Your task to perform on an android device: toggle javascript in the chrome app Image 0: 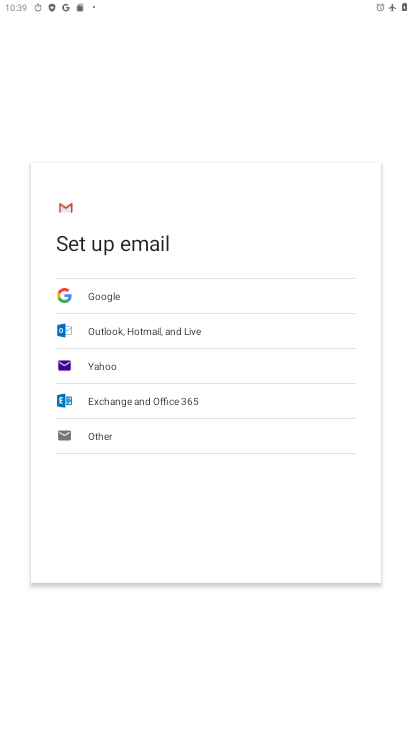
Step 0: press home button
Your task to perform on an android device: toggle javascript in the chrome app Image 1: 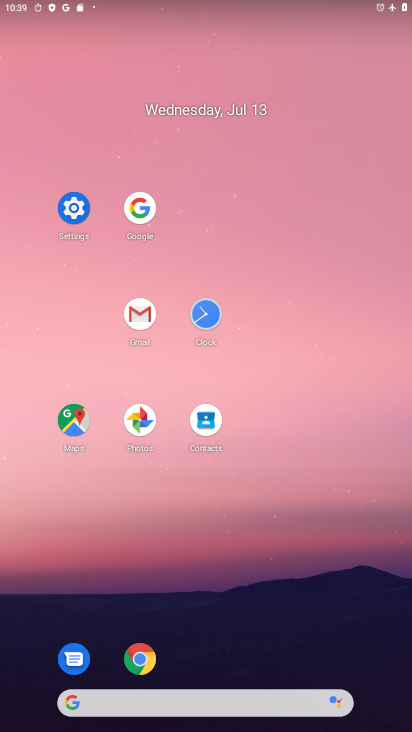
Step 1: click (142, 668)
Your task to perform on an android device: toggle javascript in the chrome app Image 2: 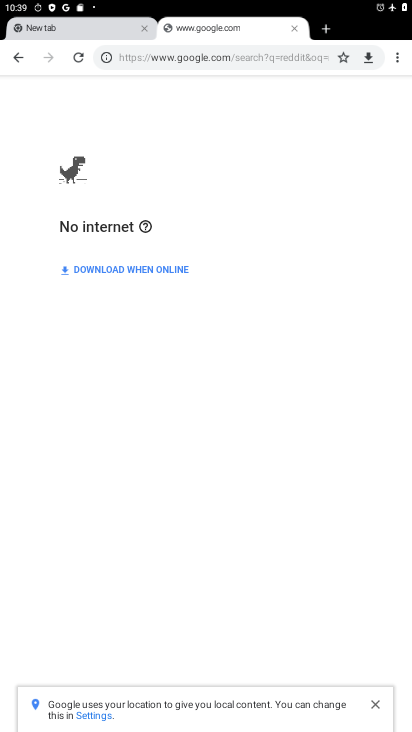
Step 2: click (333, 39)
Your task to perform on an android device: toggle javascript in the chrome app Image 3: 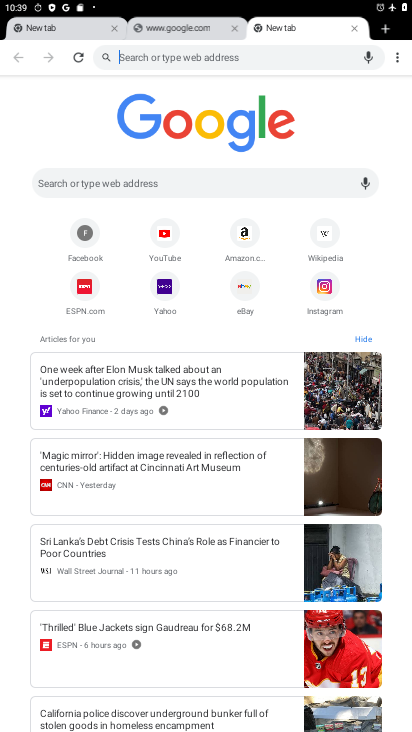
Step 3: click (397, 51)
Your task to perform on an android device: toggle javascript in the chrome app Image 4: 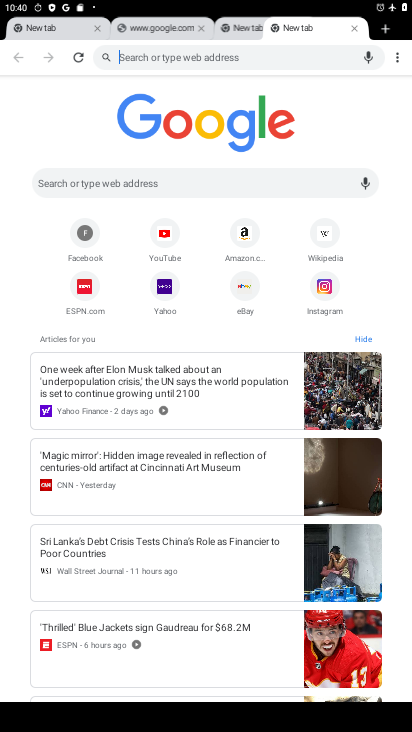
Step 4: click (401, 69)
Your task to perform on an android device: toggle javascript in the chrome app Image 5: 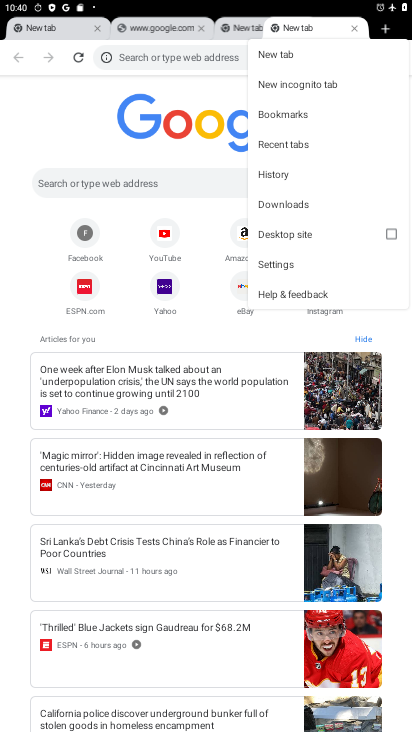
Step 5: click (287, 260)
Your task to perform on an android device: toggle javascript in the chrome app Image 6: 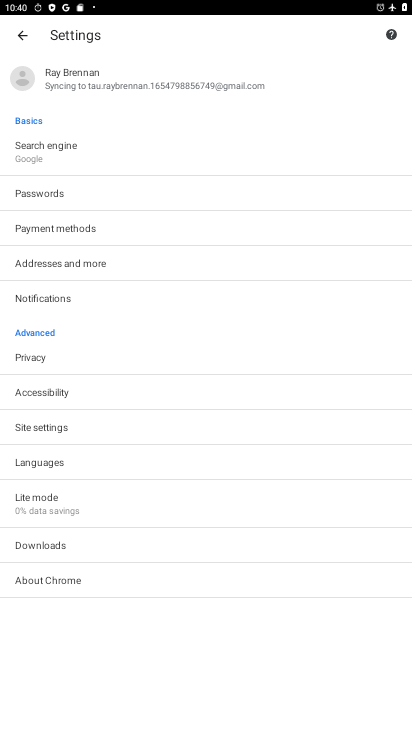
Step 6: click (126, 433)
Your task to perform on an android device: toggle javascript in the chrome app Image 7: 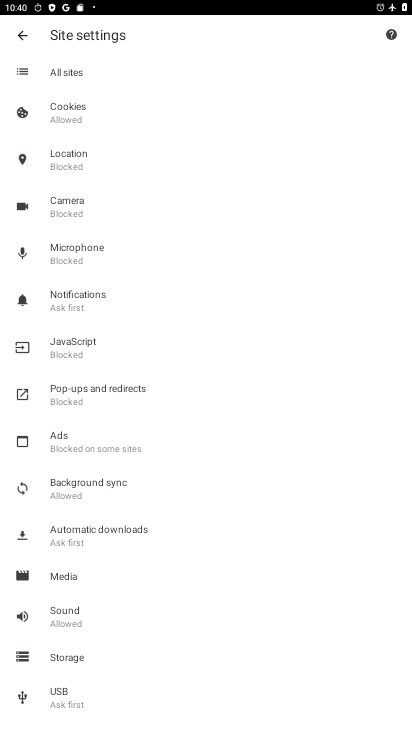
Step 7: click (218, 359)
Your task to perform on an android device: toggle javascript in the chrome app Image 8: 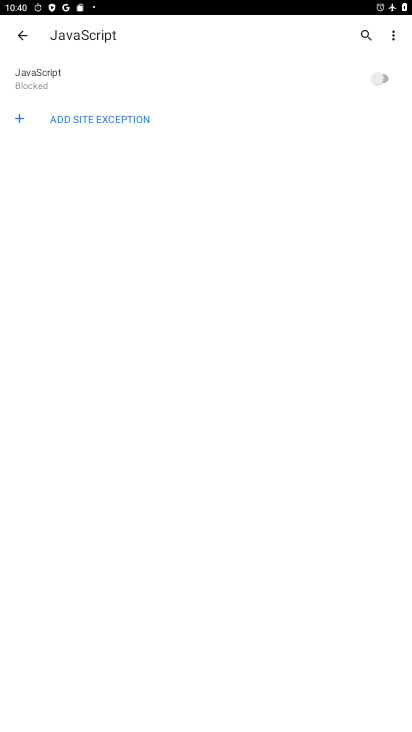
Step 8: click (381, 75)
Your task to perform on an android device: toggle javascript in the chrome app Image 9: 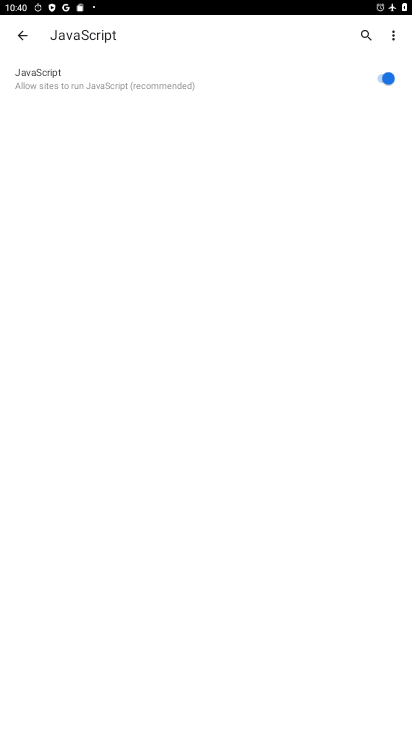
Step 9: task complete